Your task to perform on an android device: make emails show in primary in the gmail app Image 0: 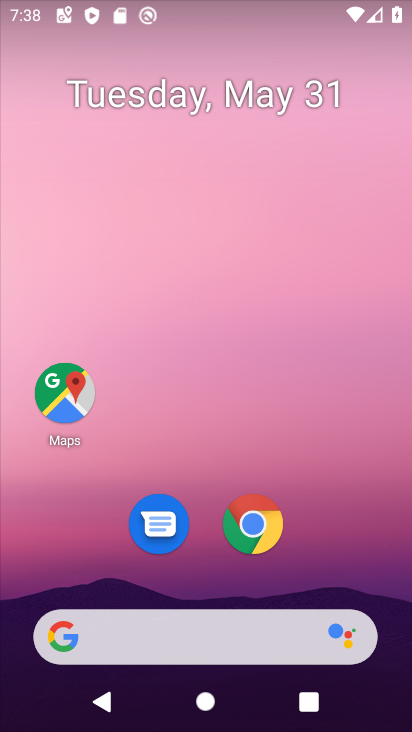
Step 0: drag from (196, 551) to (159, 44)
Your task to perform on an android device: make emails show in primary in the gmail app Image 1: 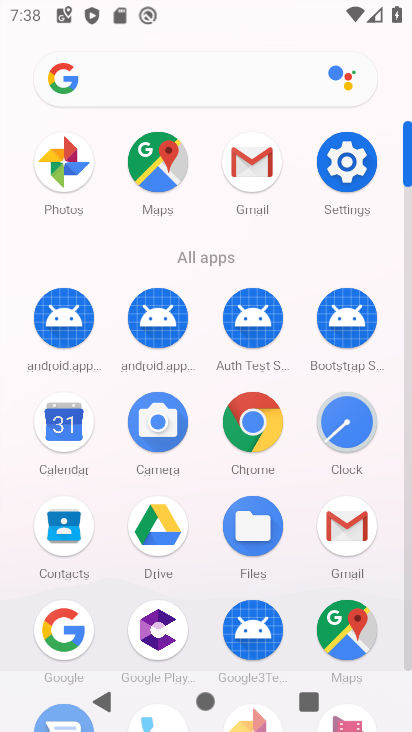
Step 1: click (243, 162)
Your task to perform on an android device: make emails show in primary in the gmail app Image 2: 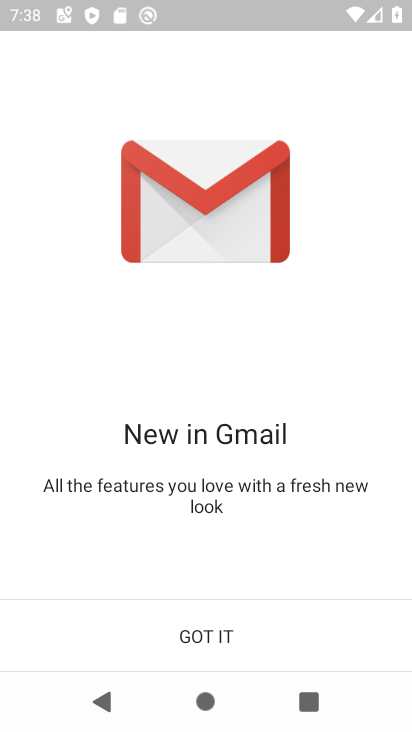
Step 2: click (257, 633)
Your task to perform on an android device: make emails show in primary in the gmail app Image 3: 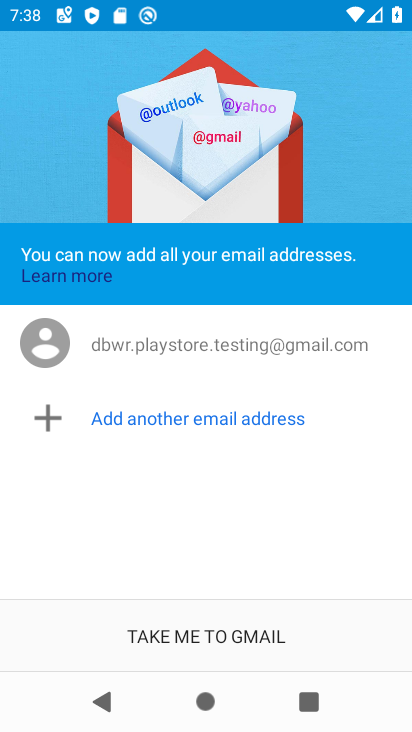
Step 3: click (258, 631)
Your task to perform on an android device: make emails show in primary in the gmail app Image 4: 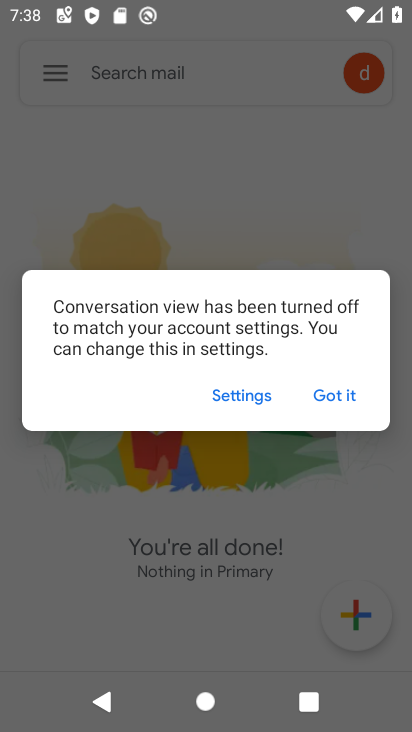
Step 4: click (337, 382)
Your task to perform on an android device: make emails show in primary in the gmail app Image 5: 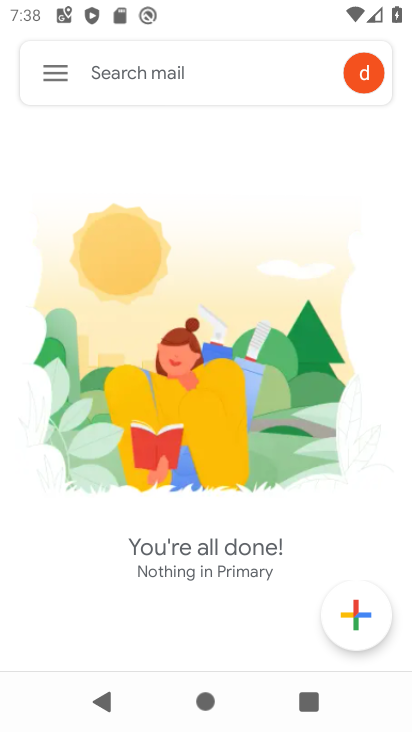
Step 5: click (55, 57)
Your task to perform on an android device: make emails show in primary in the gmail app Image 6: 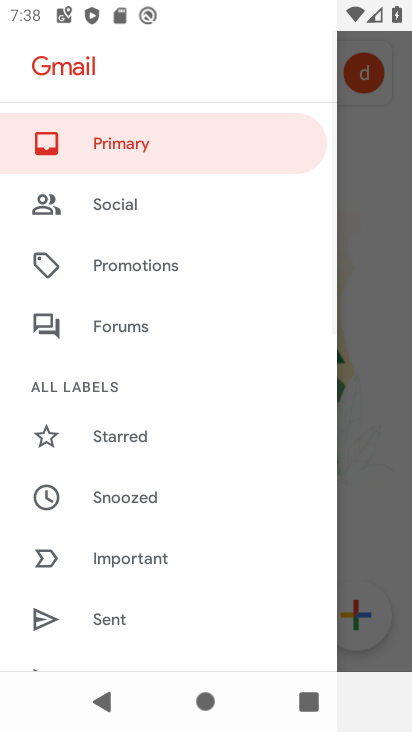
Step 6: drag from (162, 536) to (178, 33)
Your task to perform on an android device: make emails show in primary in the gmail app Image 7: 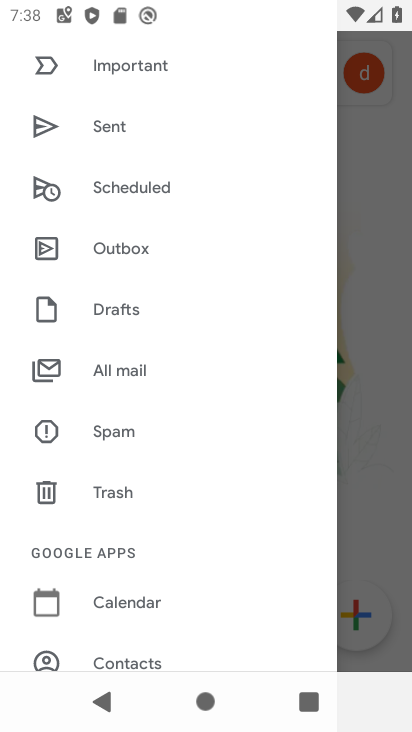
Step 7: drag from (183, 544) to (228, 114)
Your task to perform on an android device: make emails show in primary in the gmail app Image 8: 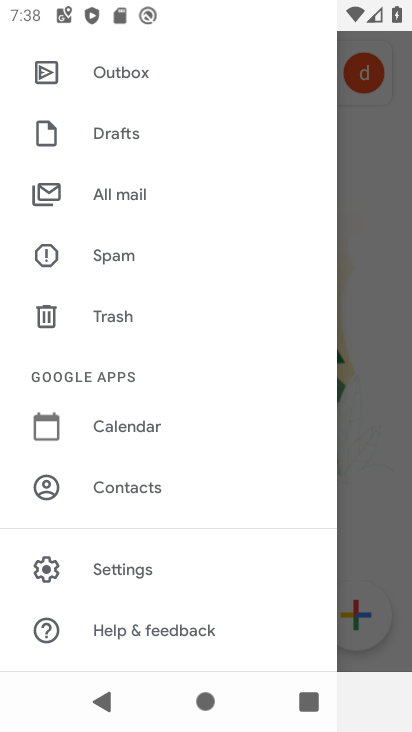
Step 8: click (159, 568)
Your task to perform on an android device: make emails show in primary in the gmail app Image 9: 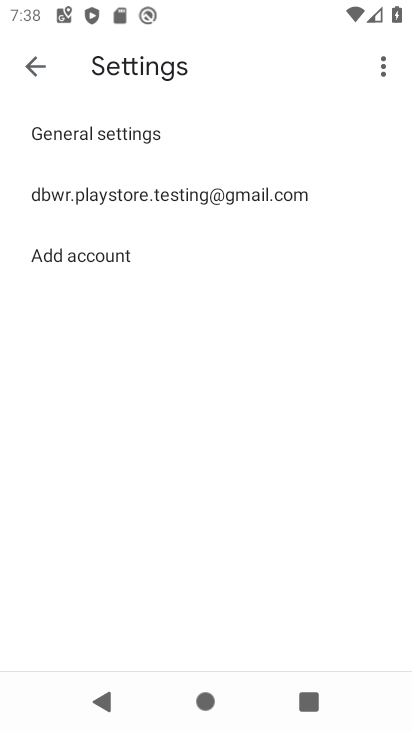
Step 9: click (231, 187)
Your task to perform on an android device: make emails show in primary in the gmail app Image 10: 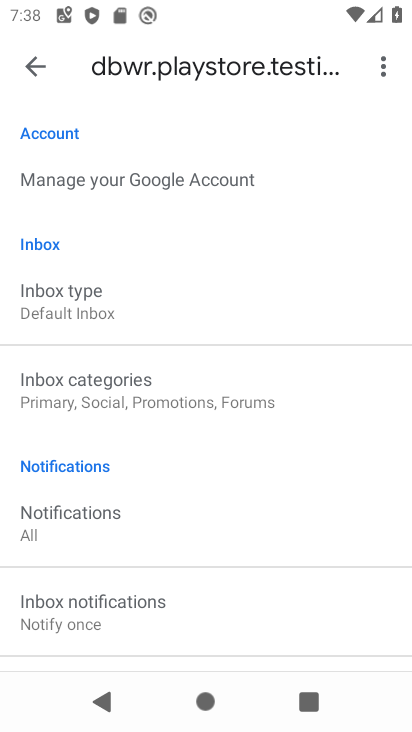
Step 10: click (200, 395)
Your task to perform on an android device: make emails show in primary in the gmail app Image 11: 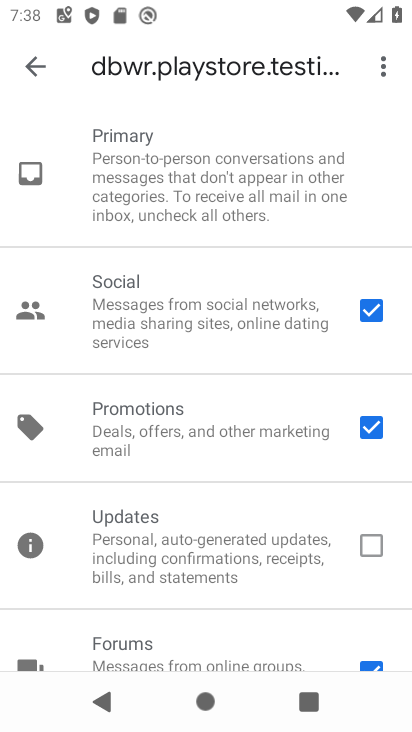
Step 11: click (366, 300)
Your task to perform on an android device: make emails show in primary in the gmail app Image 12: 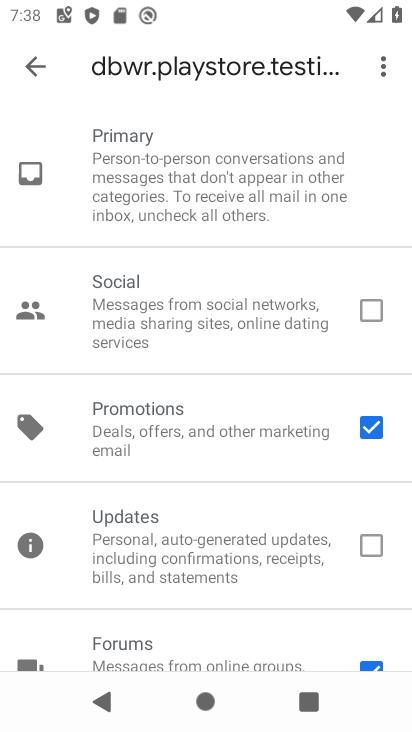
Step 12: click (369, 420)
Your task to perform on an android device: make emails show in primary in the gmail app Image 13: 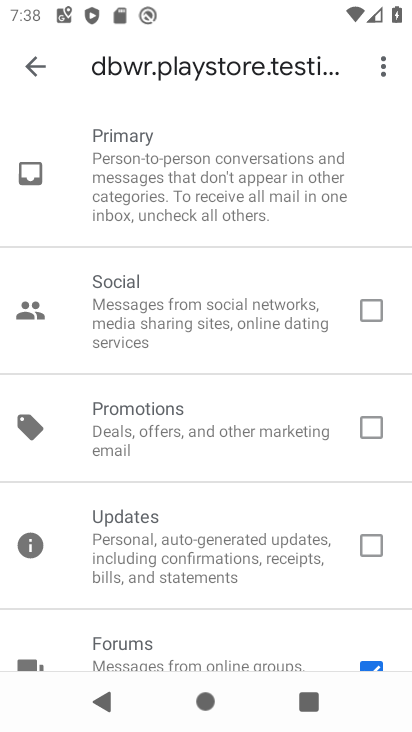
Step 13: drag from (319, 604) to (311, 450)
Your task to perform on an android device: make emails show in primary in the gmail app Image 14: 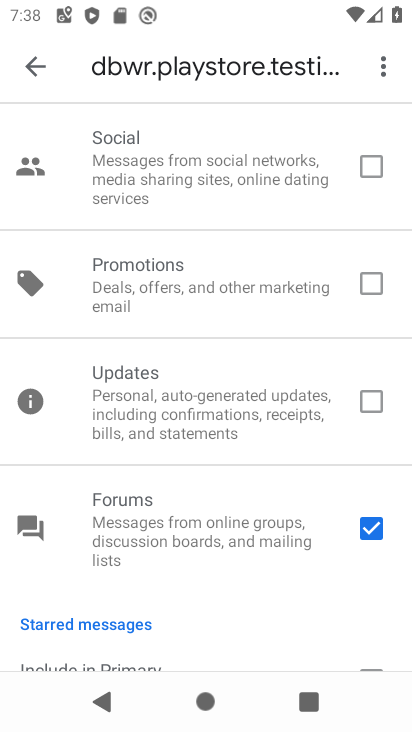
Step 14: click (366, 531)
Your task to perform on an android device: make emails show in primary in the gmail app Image 15: 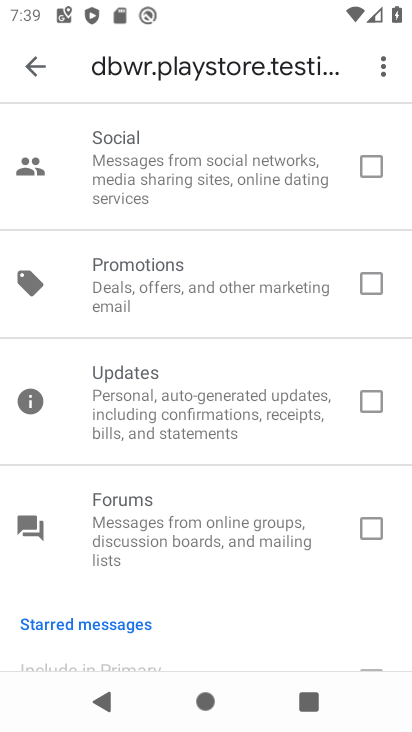
Step 15: click (37, 64)
Your task to perform on an android device: make emails show in primary in the gmail app Image 16: 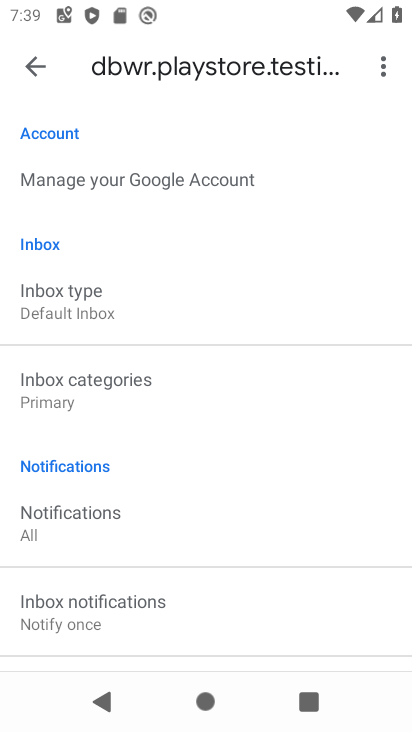
Step 16: task complete